Your task to perform on an android device: Open Google Chrome and click the shortcut for Amazon.com Image 0: 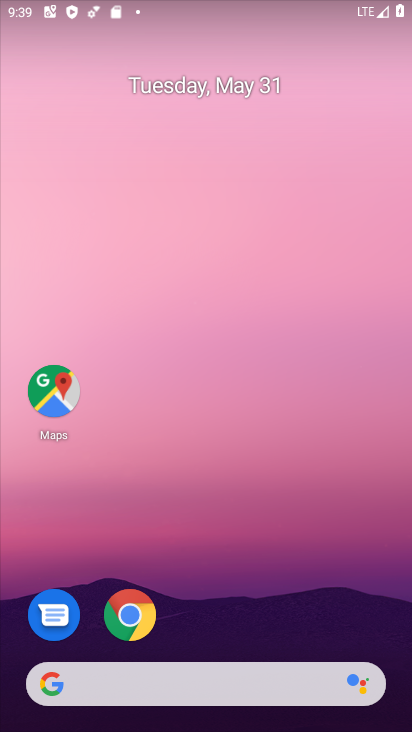
Step 0: drag from (353, 582) to (387, 128)
Your task to perform on an android device: Open Google Chrome and click the shortcut for Amazon.com Image 1: 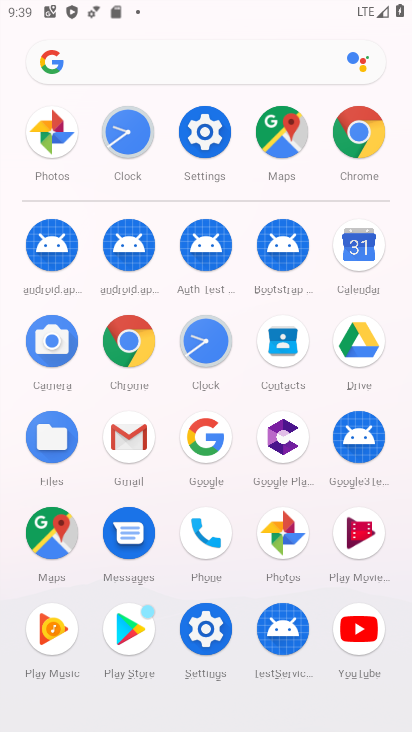
Step 1: click (369, 153)
Your task to perform on an android device: Open Google Chrome and click the shortcut for Amazon.com Image 2: 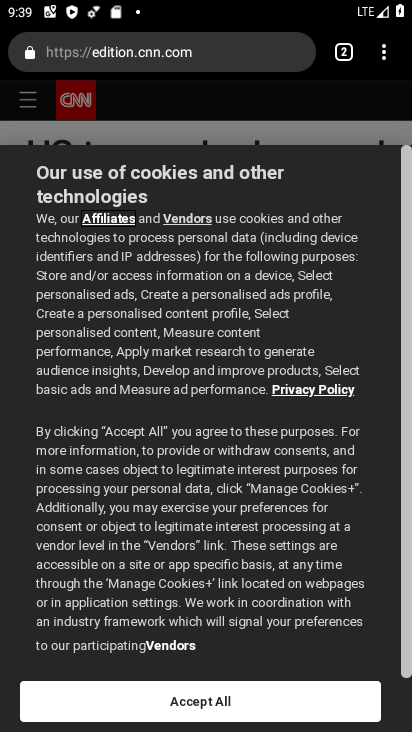
Step 2: click (235, 53)
Your task to perform on an android device: Open Google Chrome and click the shortcut for Amazon.com Image 3: 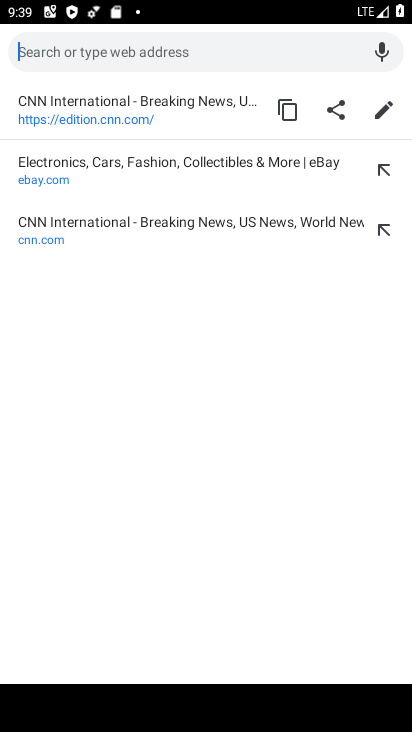
Step 3: type "amazon"
Your task to perform on an android device: Open Google Chrome and click the shortcut for Amazon.com Image 4: 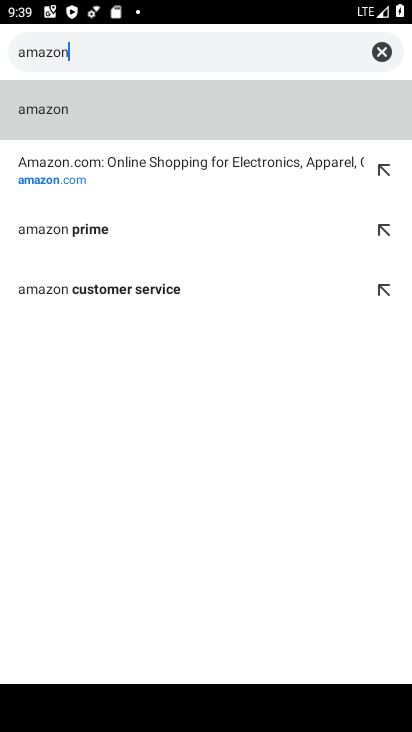
Step 4: click (91, 178)
Your task to perform on an android device: Open Google Chrome and click the shortcut for Amazon.com Image 5: 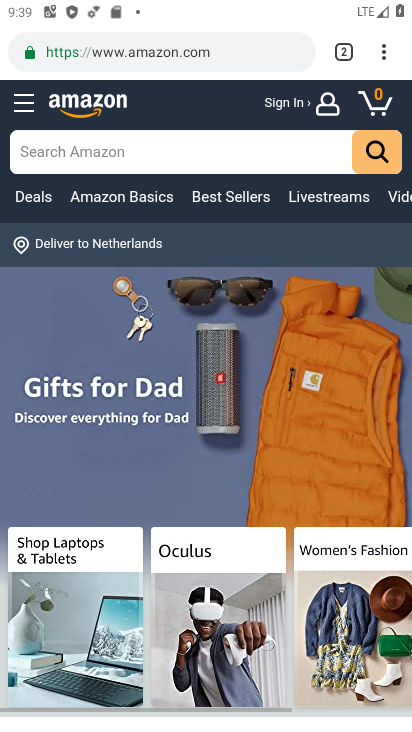
Step 5: drag from (388, 54) to (262, 550)
Your task to perform on an android device: Open Google Chrome and click the shortcut for Amazon.com Image 6: 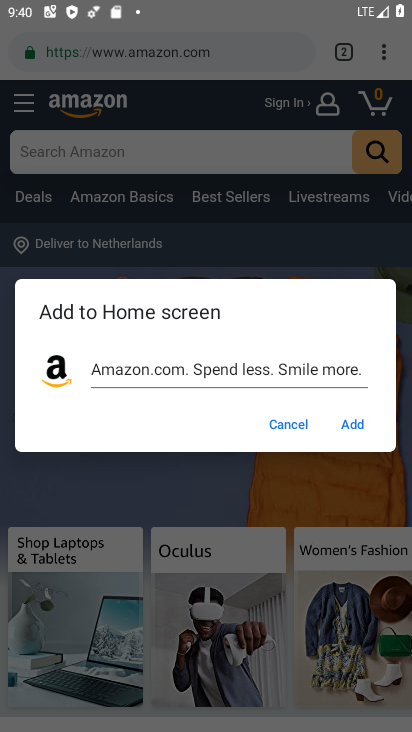
Step 6: click (352, 422)
Your task to perform on an android device: Open Google Chrome and click the shortcut for Amazon.com Image 7: 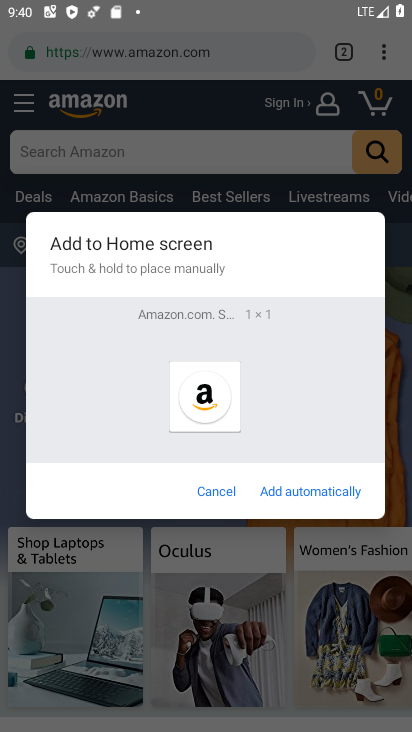
Step 7: click (332, 485)
Your task to perform on an android device: Open Google Chrome and click the shortcut for Amazon.com Image 8: 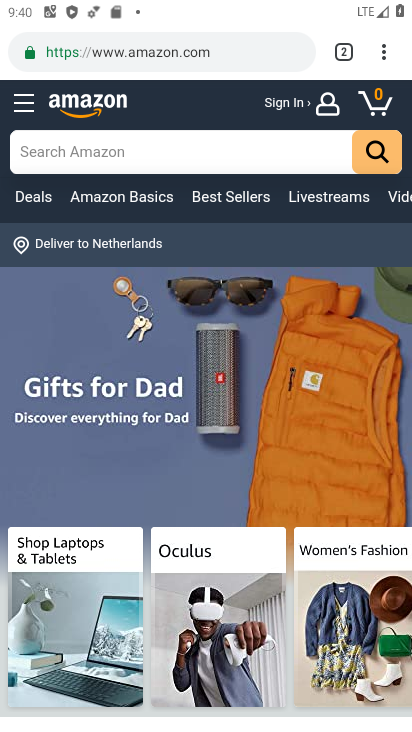
Step 8: task complete